Your task to perform on an android device: What's on my calendar tomorrow? Image 0: 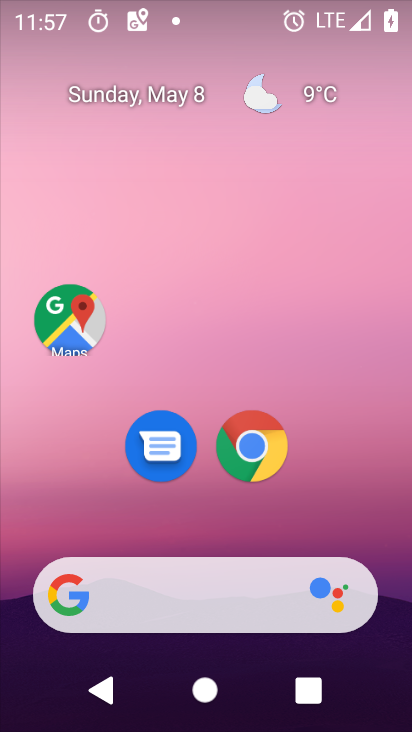
Step 0: drag from (375, 535) to (334, 8)
Your task to perform on an android device: What's on my calendar tomorrow? Image 1: 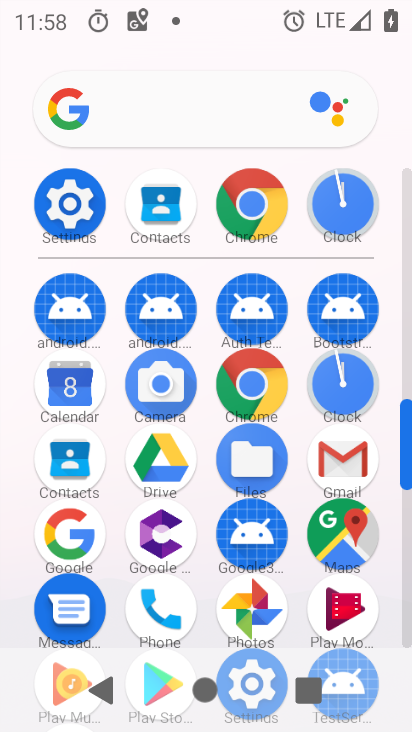
Step 1: click (74, 391)
Your task to perform on an android device: What's on my calendar tomorrow? Image 2: 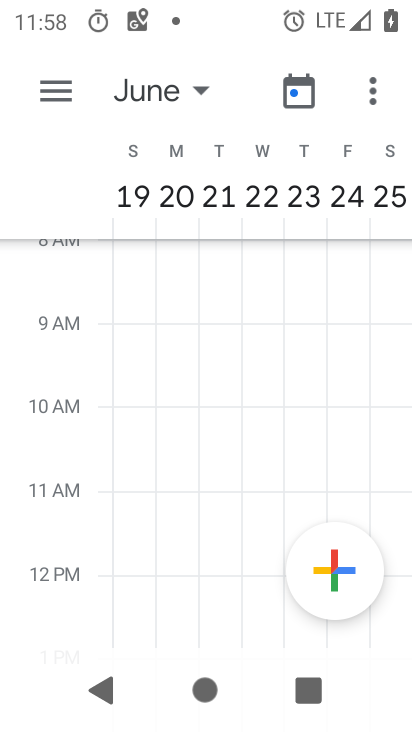
Step 2: click (196, 91)
Your task to perform on an android device: What's on my calendar tomorrow? Image 3: 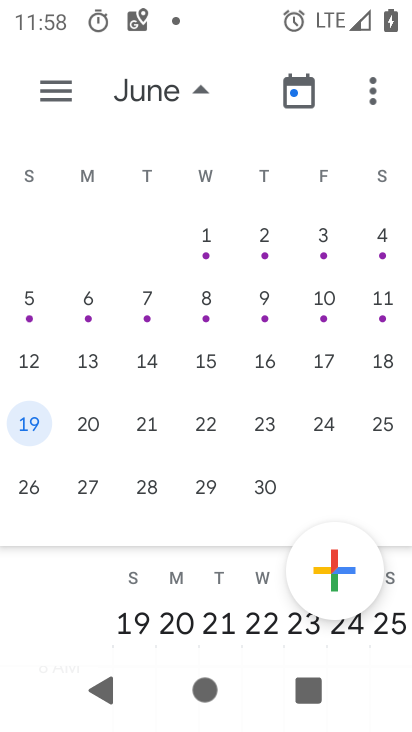
Step 3: drag from (95, 216) to (399, 196)
Your task to perform on an android device: What's on my calendar tomorrow? Image 4: 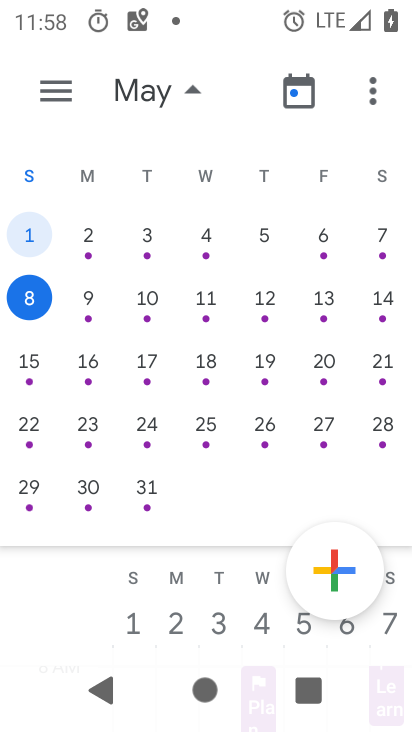
Step 4: click (89, 304)
Your task to perform on an android device: What's on my calendar tomorrow? Image 5: 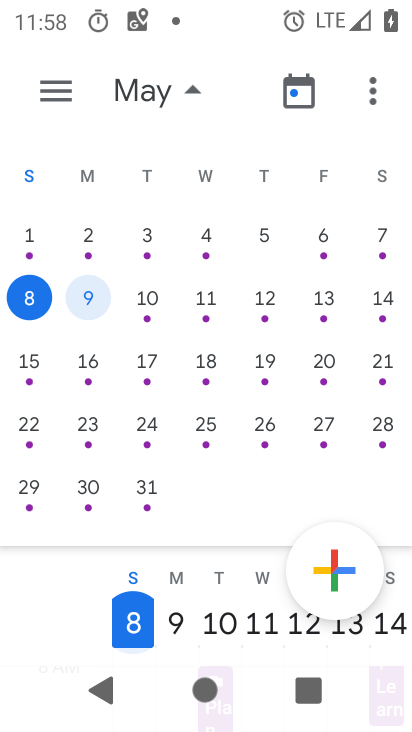
Step 5: drag from (137, 480) to (119, 244)
Your task to perform on an android device: What's on my calendar tomorrow? Image 6: 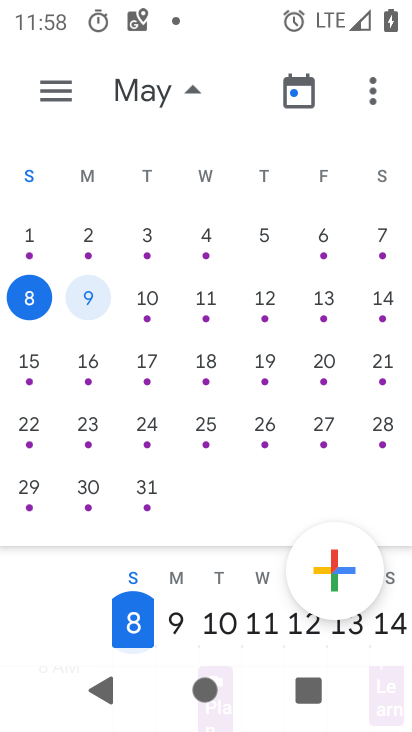
Step 6: click (57, 90)
Your task to perform on an android device: What's on my calendar tomorrow? Image 7: 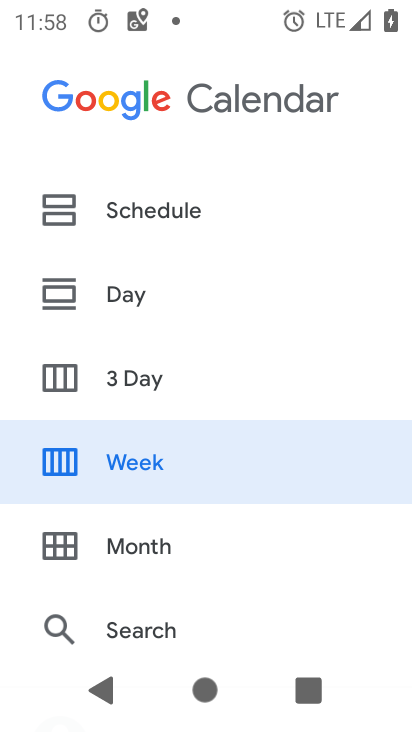
Step 7: click (130, 203)
Your task to perform on an android device: What's on my calendar tomorrow? Image 8: 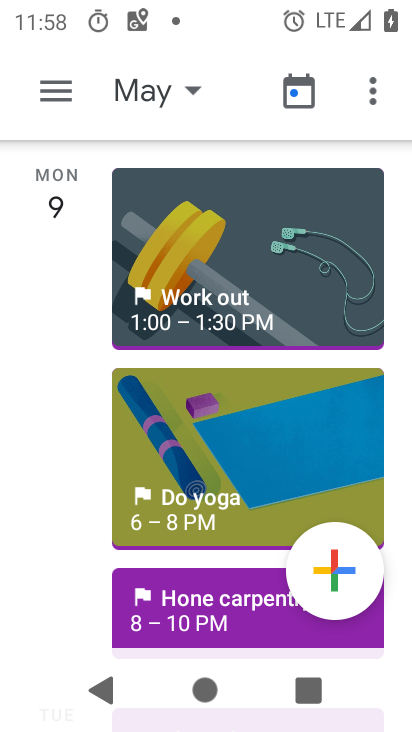
Step 8: drag from (164, 497) to (164, 273)
Your task to perform on an android device: What's on my calendar tomorrow? Image 9: 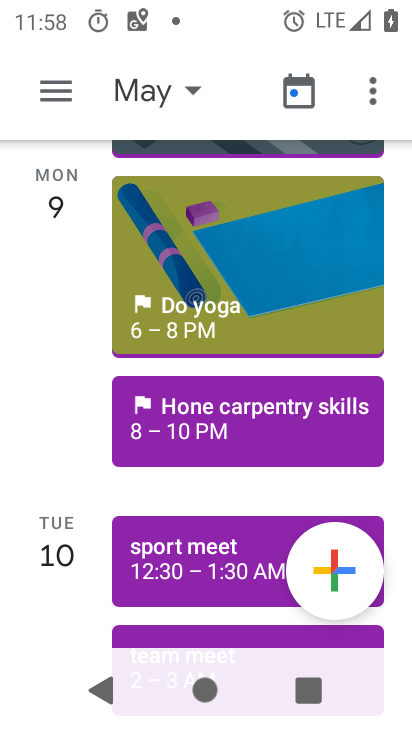
Step 9: click (197, 421)
Your task to perform on an android device: What's on my calendar tomorrow? Image 10: 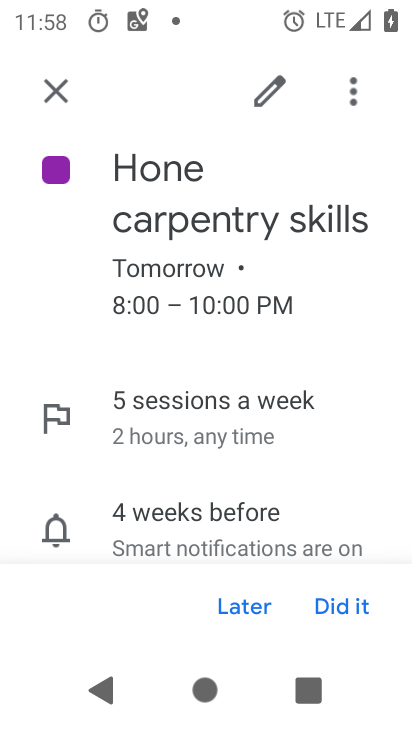
Step 10: task complete